Your task to perform on an android device: make emails show in primary in the gmail app Image 0: 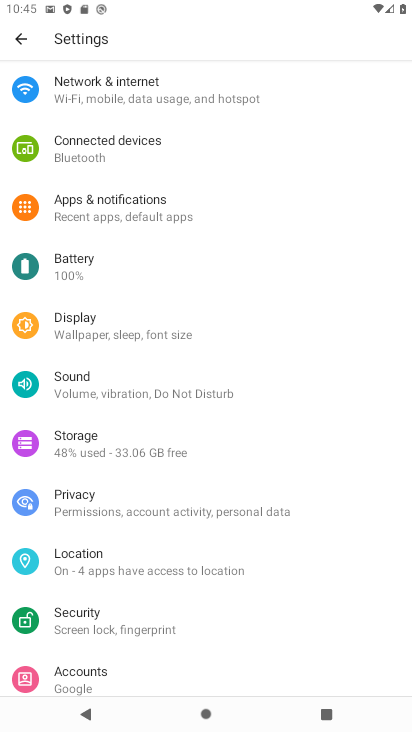
Step 0: press home button
Your task to perform on an android device: make emails show in primary in the gmail app Image 1: 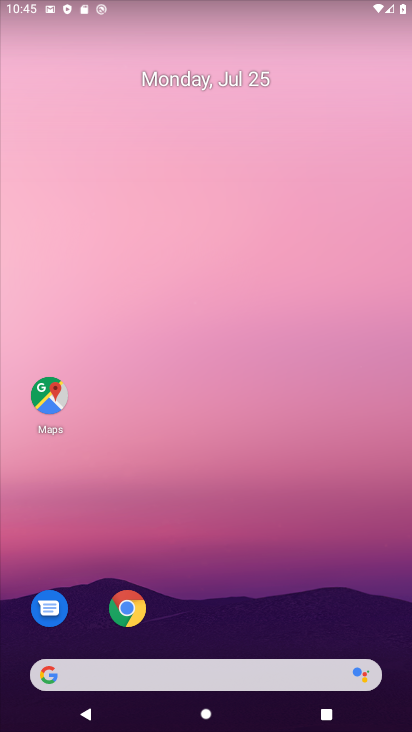
Step 1: drag from (286, 508) to (360, 9)
Your task to perform on an android device: make emails show in primary in the gmail app Image 2: 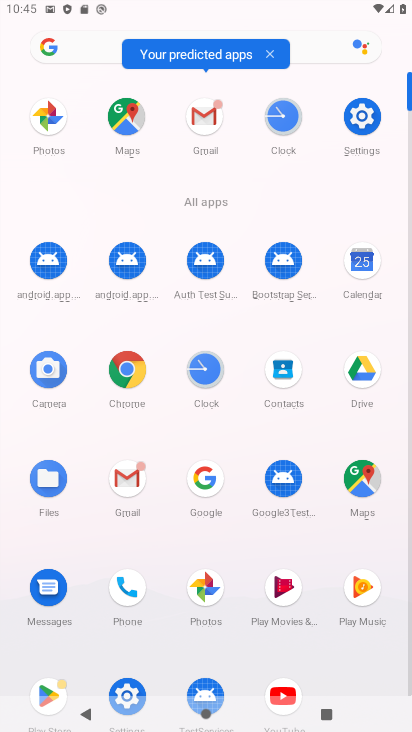
Step 2: click (197, 117)
Your task to perform on an android device: make emails show in primary in the gmail app Image 3: 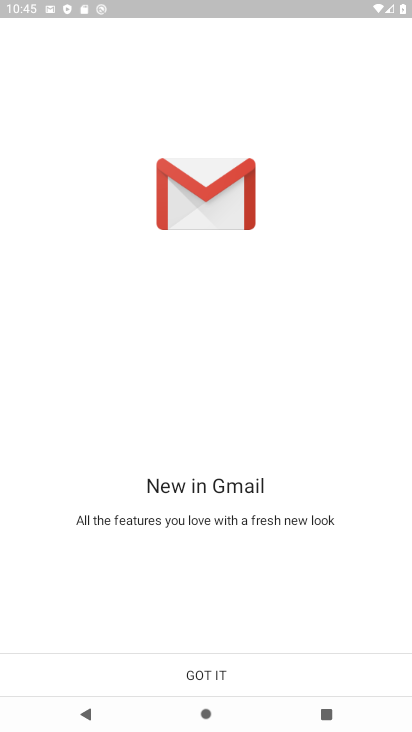
Step 3: click (219, 671)
Your task to perform on an android device: make emails show in primary in the gmail app Image 4: 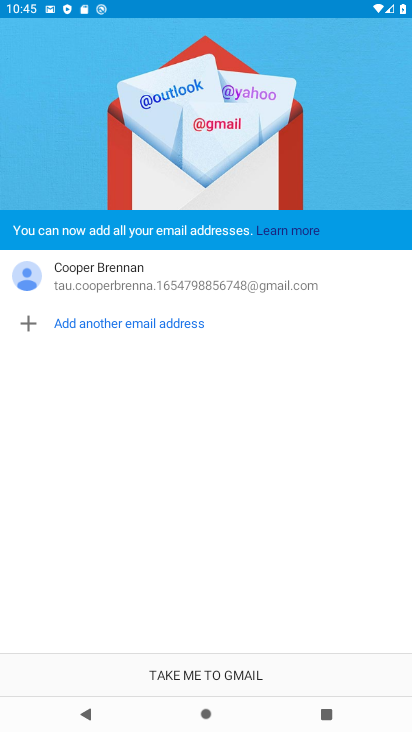
Step 4: click (219, 671)
Your task to perform on an android device: make emails show in primary in the gmail app Image 5: 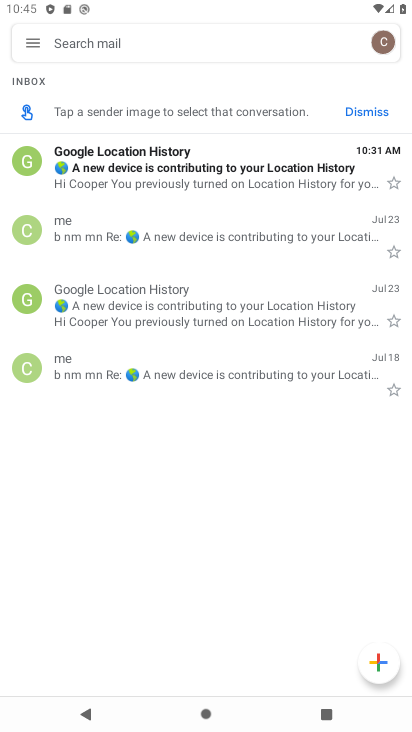
Step 5: click (39, 44)
Your task to perform on an android device: make emails show in primary in the gmail app Image 6: 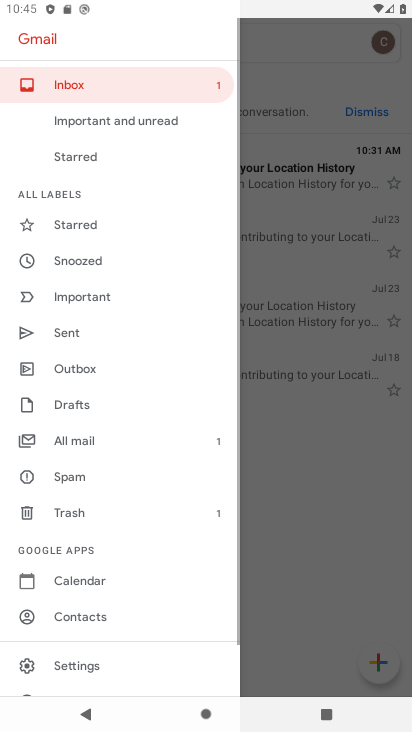
Step 6: drag from (107, 645) to (220, 61)
Your task to perform on an android device: make emails show in primary in the gmail app Image 7: 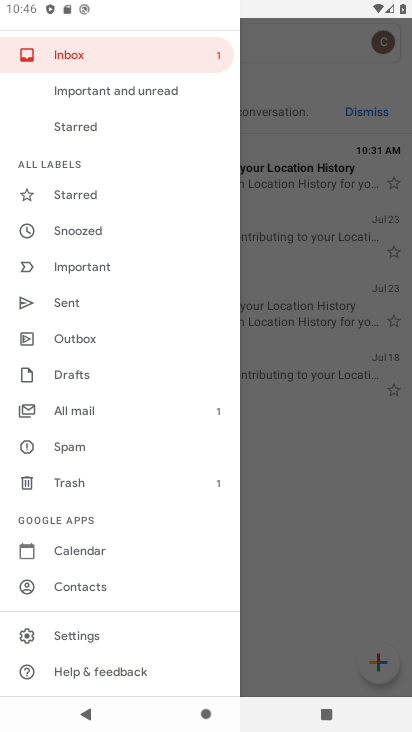
Step 7: click (111, 635)
Your task to perform on an android device: make emails show in primary in the gmail app Image 8: 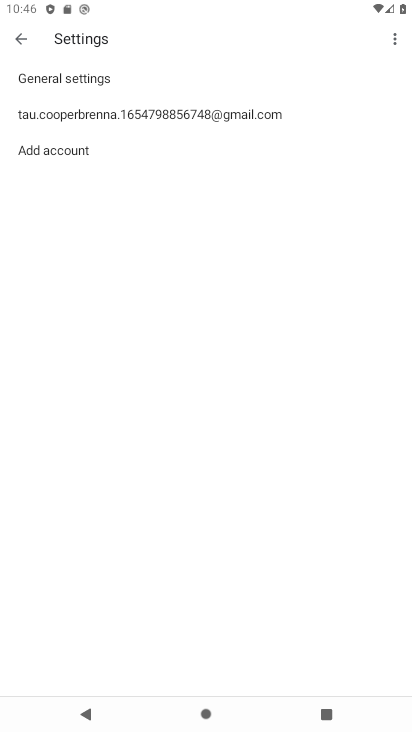
Step 8: click (134, 110)
Your task to perform on an android device: make emails show in primary in the gmail app Image 9: 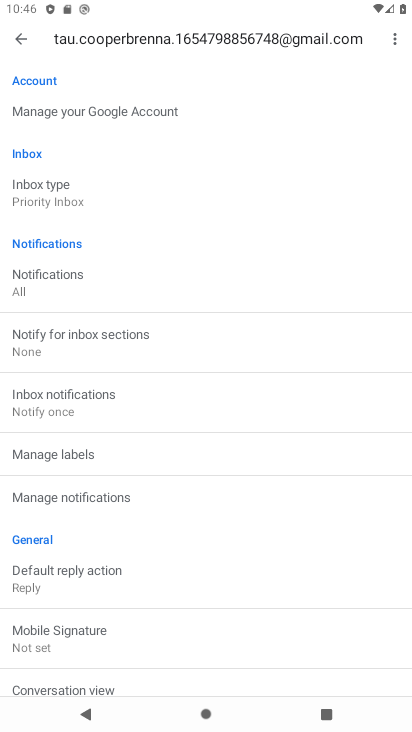
Step 9: click (35, 214)
Your task to perform on an android device: make emails show in primary in the gmail app Image 10: 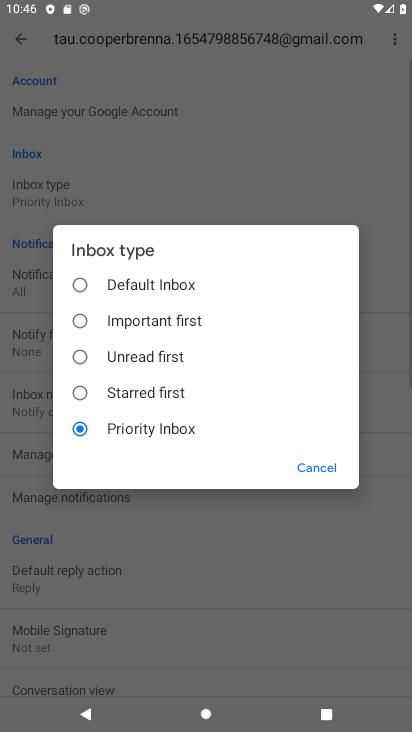
Step 10: click (121, 287)
Your task to perform on an android device: make emails show in primary in the gmail app Image 11: 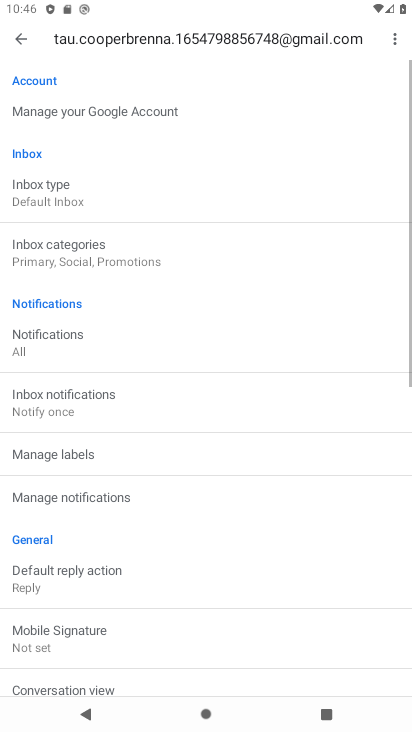
Step 11: task complete